Your task to perform on an android device: turn on airplane mode Image 0: 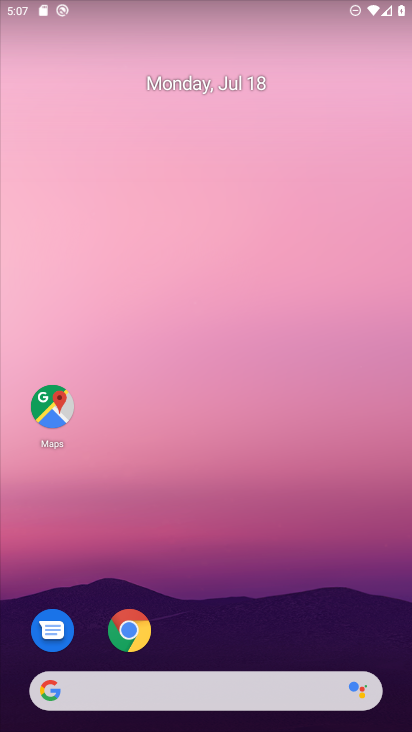
Step 0: press home button
Your task to perform on an android device: turn on airplane mode Image 1: 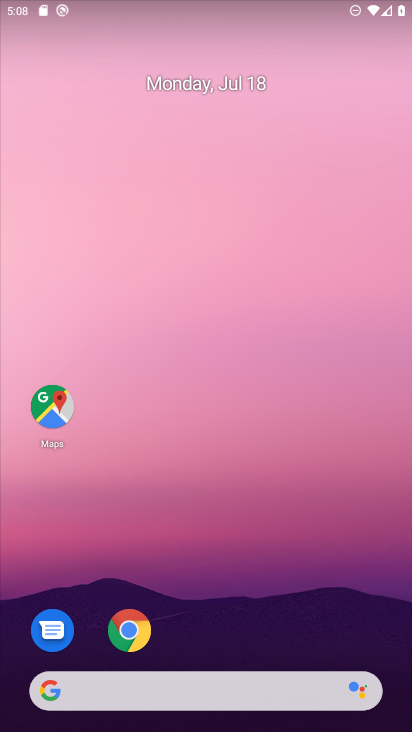
Step 1: drag from (203, 650) to (253, 395)
Your task to perform on an android device: turn on airplane mode Image 2: 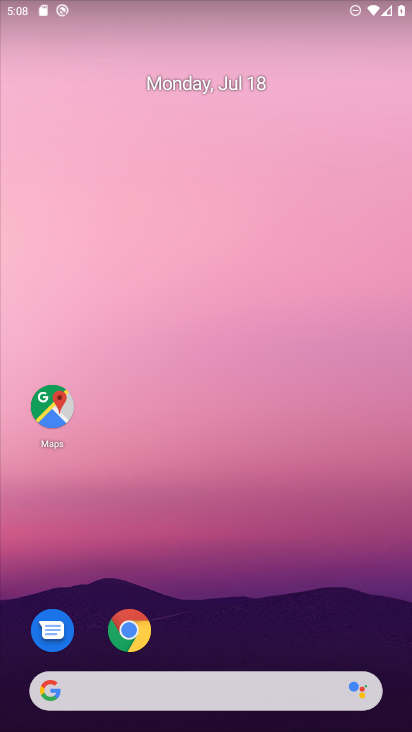
Step 2: drag from (290, 9) to (253, 426)
Your task to perform on an android device: turn on airplane mode Image 3: 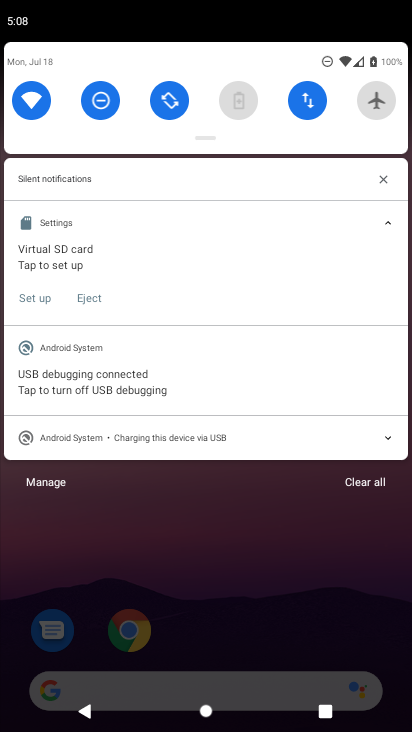
Step 3: click (376, 100)
Your task to perform on an android device: turn on airplane mode Image 4: 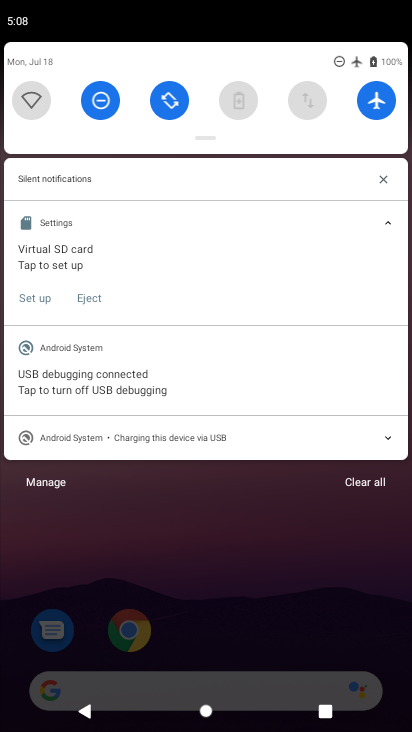
Step 4: click (370, 487)
Your task to perform on an android device: turn on airplane mode Image 5: 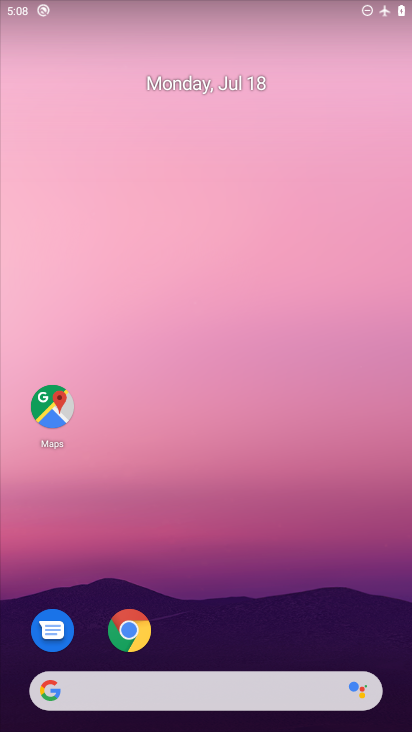
Step 5: task complete